Your task to perform on an android device: open app "PlayWell" (install if not already installed) Image 0: 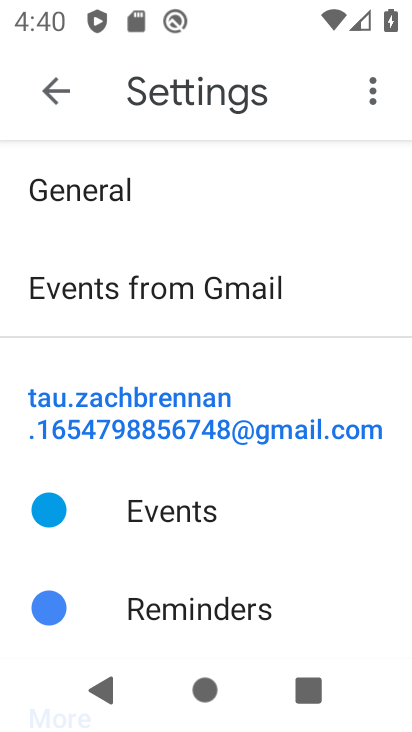
Step 0: press home button
Your task to perform on an android device: open app "PlayWell" (install if not already installed) Image 1: 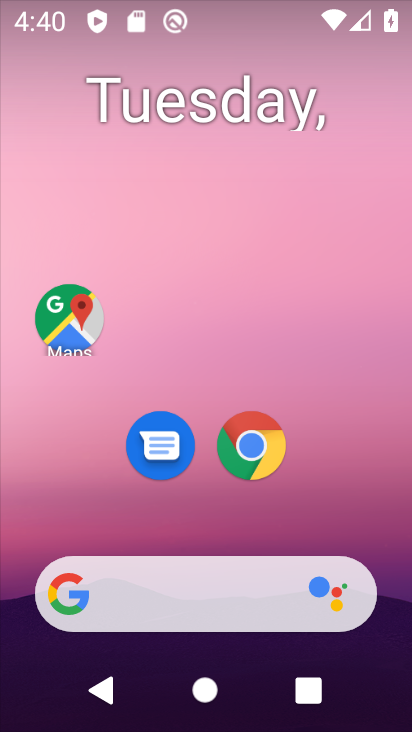
Step 1: drag from (162, 591) to (317, 11)
Your task to perform on an android device: open app "PlayWell" (install if not already installed) Image 2: 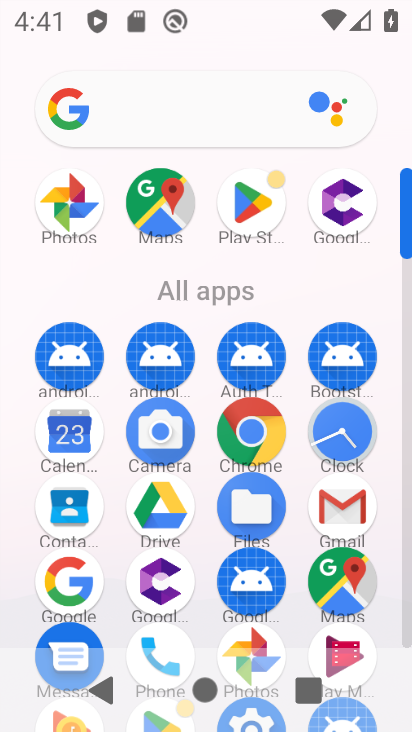
Step 2: click (256, 209)
Your task to perform on an android device: open app "PlayWell" (install if not already installed) Image 3: 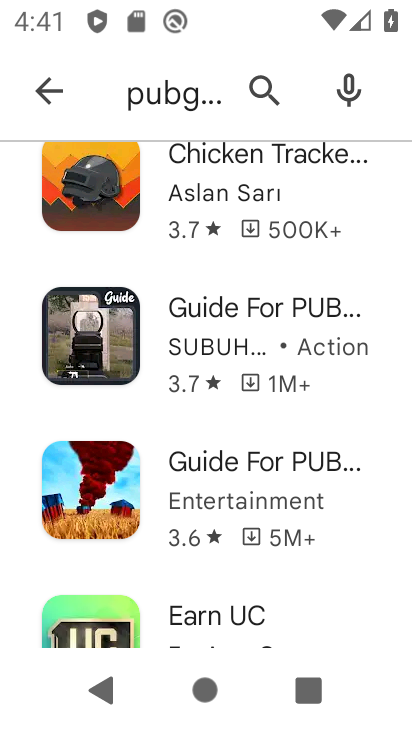
Step 3: press back button
Your task to perform on an android device: open app "PlayWell" (install if not already installed) Image 4: 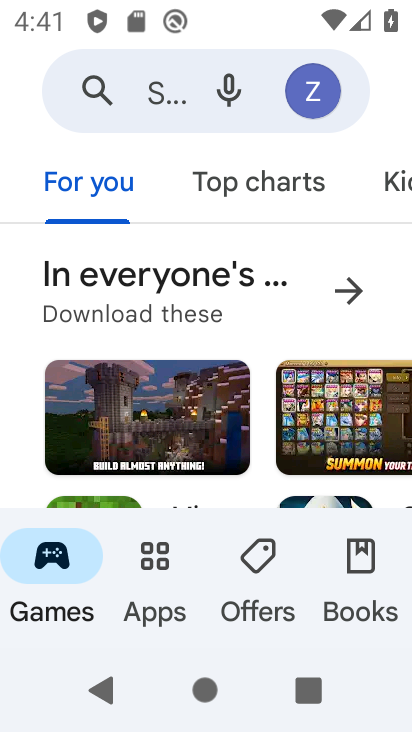
Step 4: click (163, 88)
Your task to perform on an android device: open app "PlayWell" (install if not already installed) Image 5: 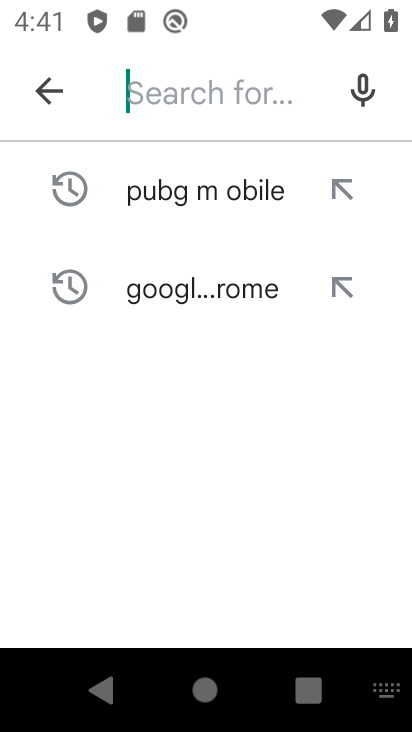
Step 5: type "PlayWell"
Your task to perform on an android device: open app "PlayWell" (install if not already installed) Image 6: 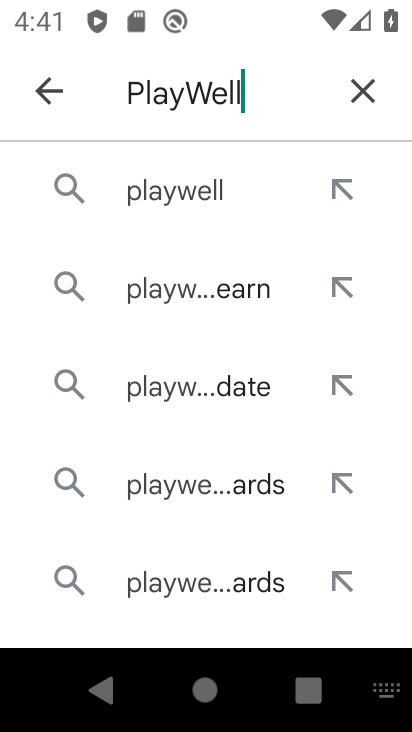
Step 6: click (168, 190)
Your task to perform on an android device: open app "PlayWell" (install if not already installed) Image 7: 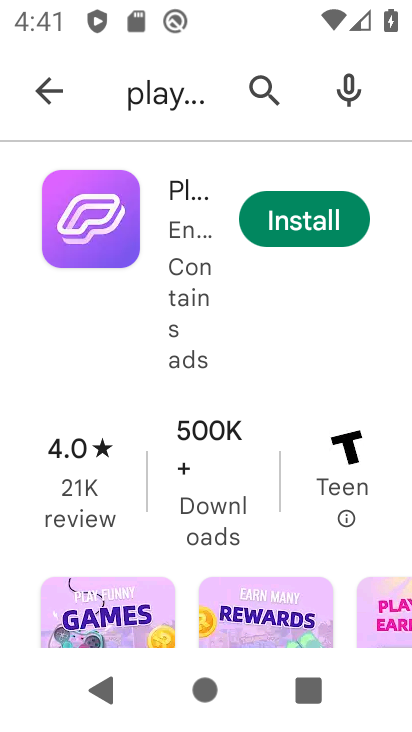
Step 7: click (283, 225)
Your task to perform on an android device: open app "PlayWell" (install if not already installed) Image 8: 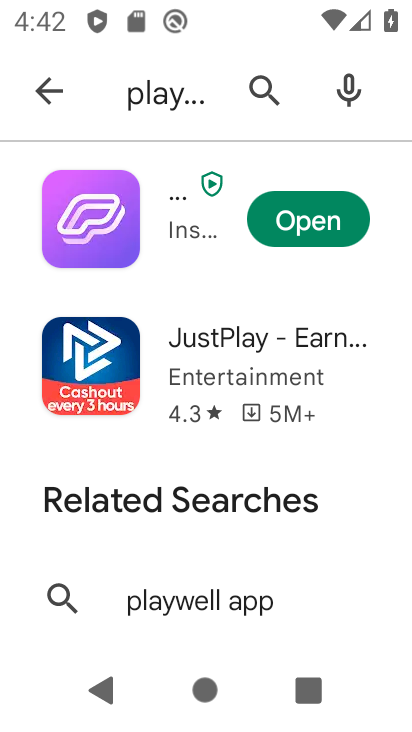
Step 8: click (298, 227)
Your task to perform on an android device: open app "PlayWell" (install if not already installed) Image 9: 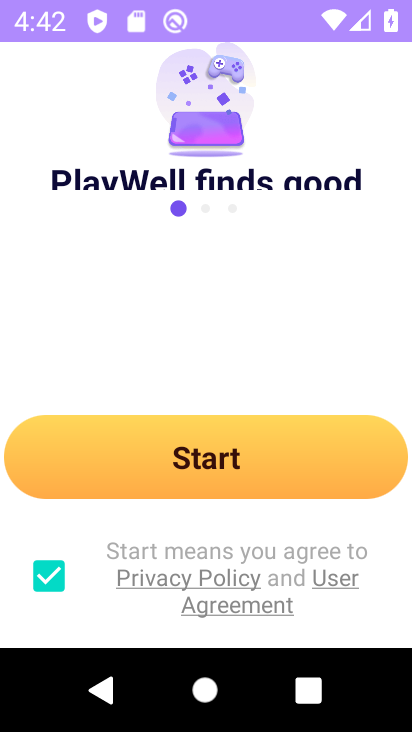
Step 9: task complete